Your task to perform on an android device: Search for 4k TVs on Best Buy. Image 0: 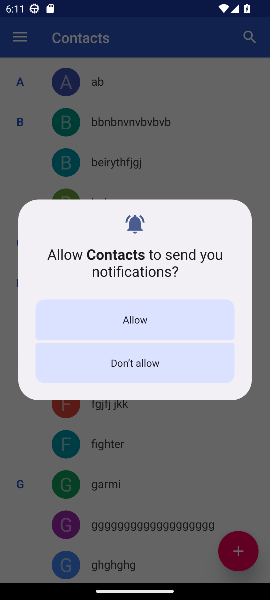
Step 0: press home button
Your task to perform on an android device: Search for 4k TVs on Best Buy. Image 1: 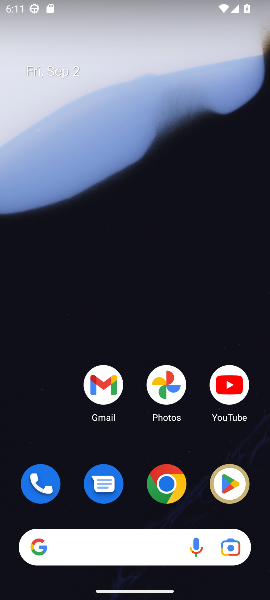
Step 1: click (170, 487)
Your task to perform on an android device: Search for 4k TVs on Best Buy. Image 2: 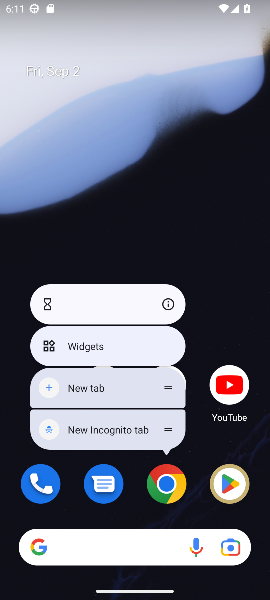
Step 2: click (170, 487)
Your task to perform on an android device: Search for 4k TVs on Best Buy. Image 3: 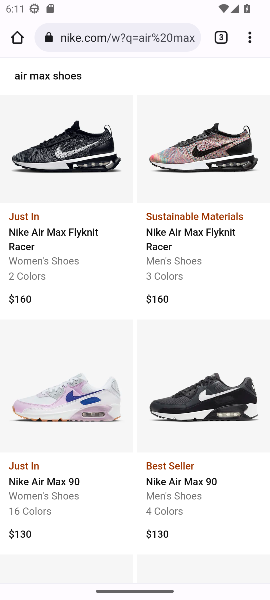
Step 3: click (163, 34)
Your task to perform on an android device: Search for 4k TVs on Best Buy. Image 4: 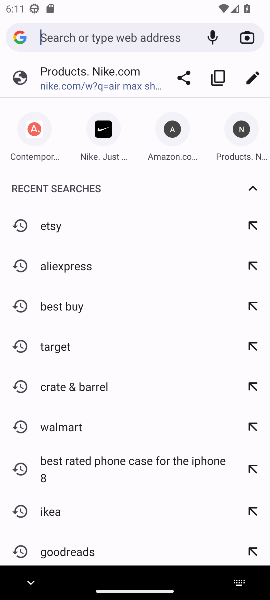
Step 4: type "Best Buy"
Your task to perform on an android device: Search for 4k TVs on Best Buy. Image 5: 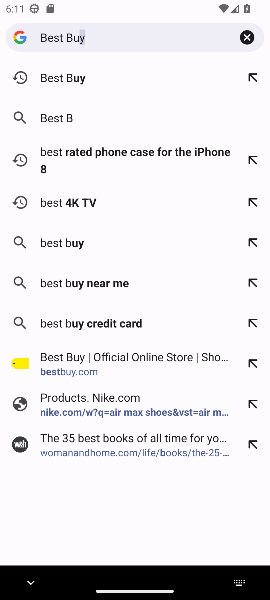
Step 5: press enter
Your task to perform on an android device: Search for 4k TVs on Best Buy. Image 6: 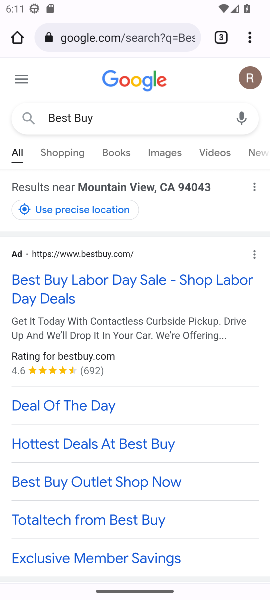
Step 6: drag from (153, 470) to (227, 268)
Your task to perform on an android device: Search for 4k TVs on Best Buy. Image 7: 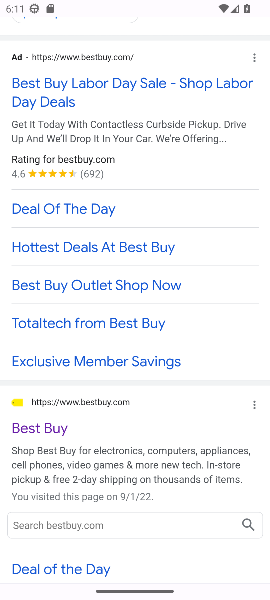
Step 7: click (44, 426)
Your task to perform on an android device: Search for 4k TVs on Best Buy. Image 8: 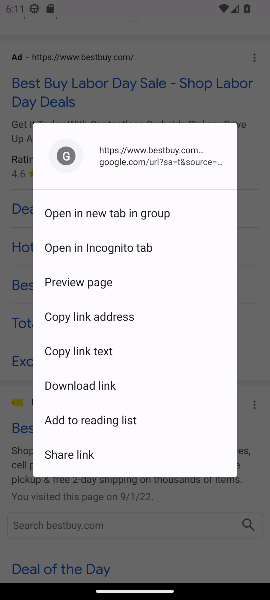
Step 8: click (226, 502)
Your task to perform on an android device: Search for 4k TVs on Best Buy. Image 9: 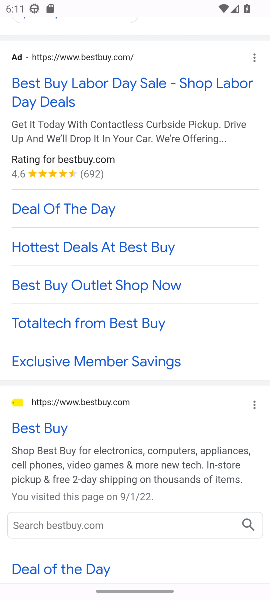
Step 9: click (42, 429)
Your task to perform on an android device: Search for 4k TVs on Best Buy. Image 10: 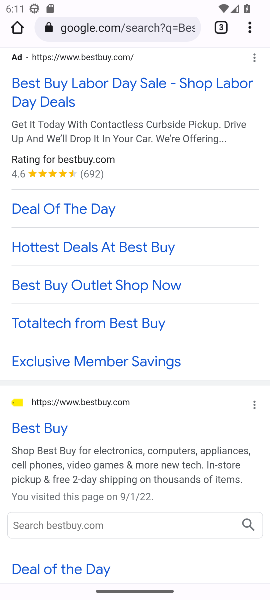
Step 10: click (35, 426)
Your task to perform on an android device: Search for 4k TVs on Best Buy. Image 11: 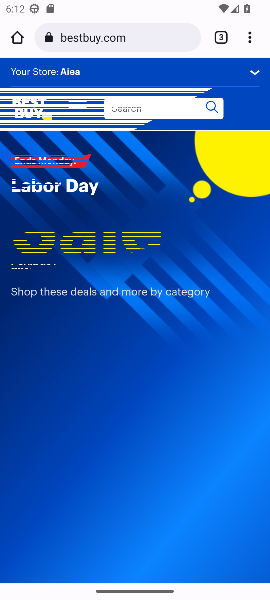
Step 11: click (165, 102)
Your task to perform on an android device: Search for 4k TVs on Best Buy. Image 12: 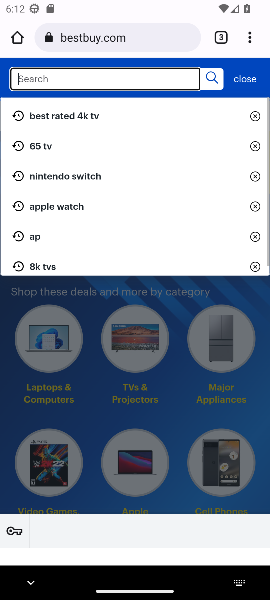
Step 12: type "4k TVs"
Your task to perform on an android device: Search for 4k TVs on Best Buy. Image 13: 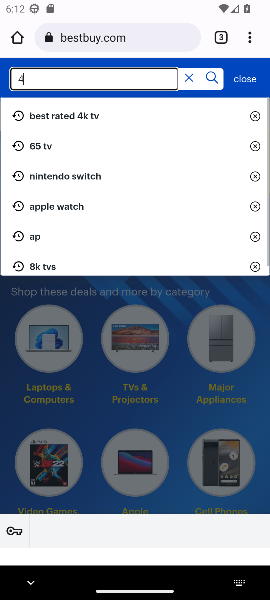
Step 13: press enter
Your task to perform on an android device: Search for 4k TVs on Best Buy. Image 14: 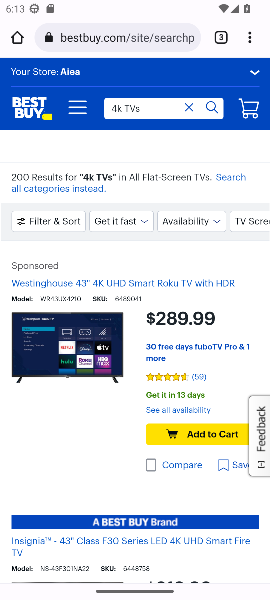
Step 14: task complete